Your task to perform on an android device: Open CNN.com Image 0: 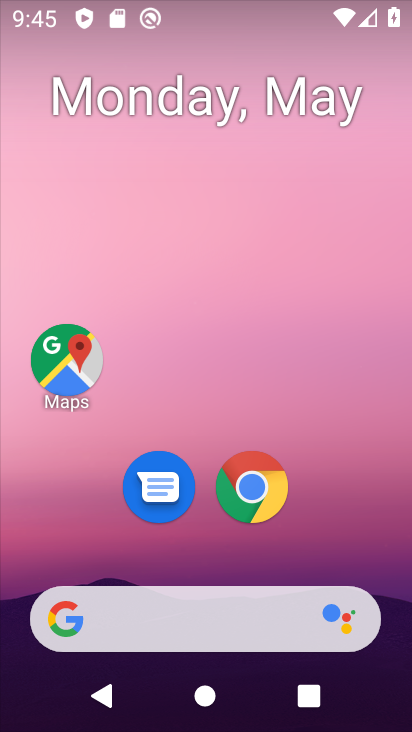
Step 0: click (266, 471)
Your task to perform on an android device: Open CNN.com Image 1: 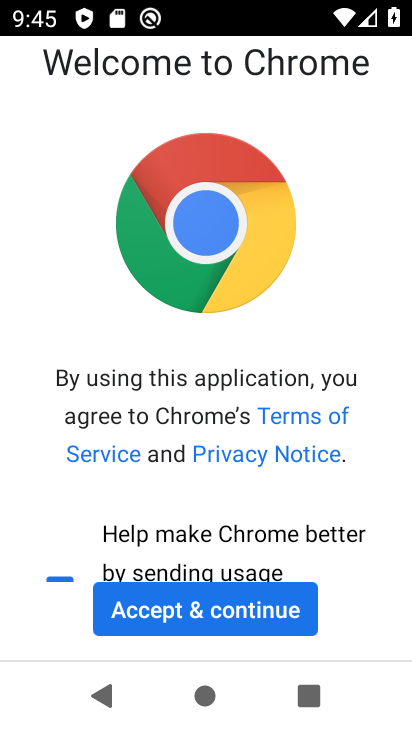
Step 1: click (255, 607)
Your task to perform on an android device: Open CNN.com Image 2: 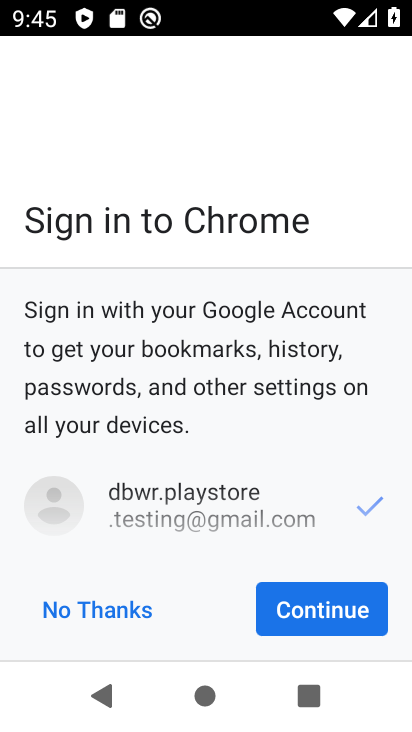
Step 2: click (340, 617)
Your task to perform on an android device: Open CNN.com Image 3: 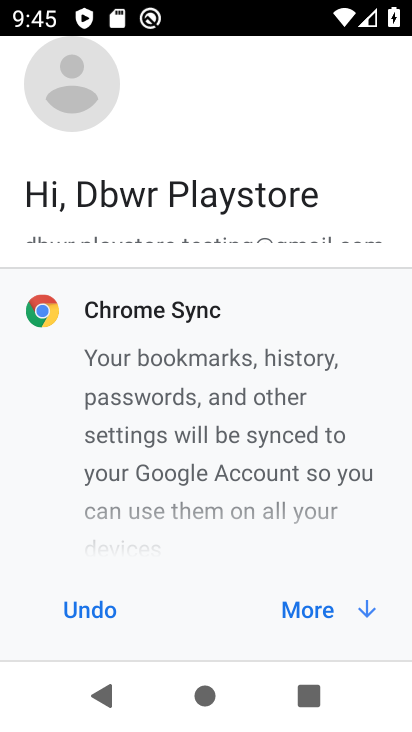
Step 3: click (326, 618)
Your task to perform on an android device: Open CNN.com Image 4: 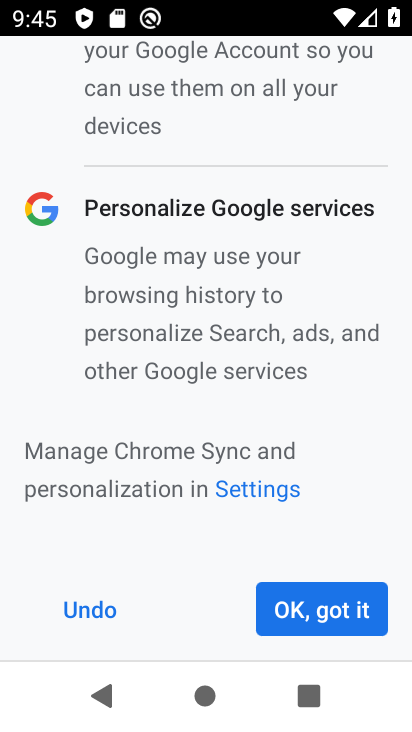
Step 4: click (321, 617)
Your task to perform on an android device: Open CNN.com Image 5: 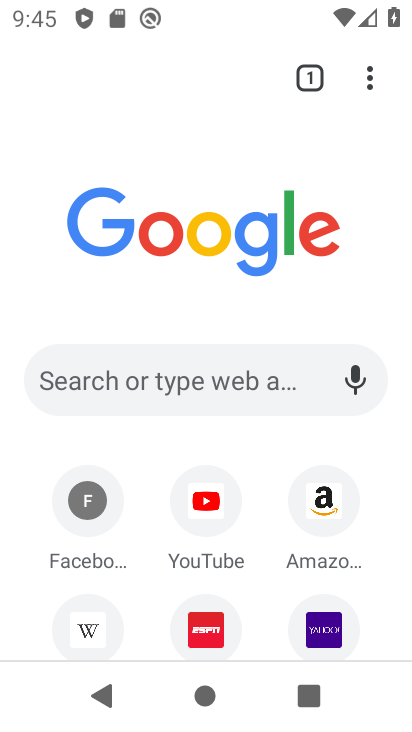
Step 5: click (181, 373)
Your task to perform on an android device: Open CNN.com Image 6: 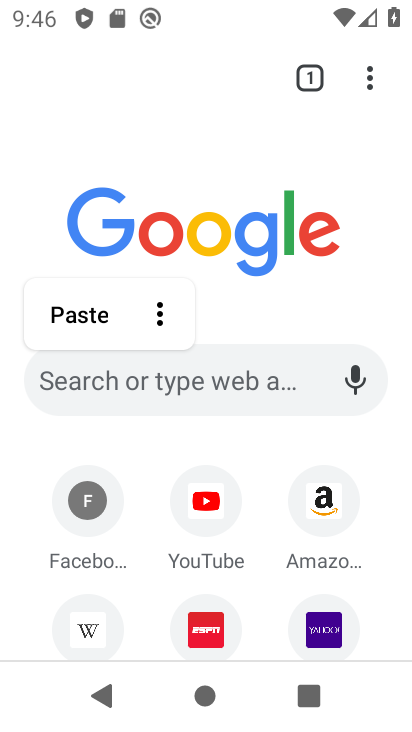
Step 6: type "CNN.com"
Your task to perform on an android device: Open CNN.com Image 7: 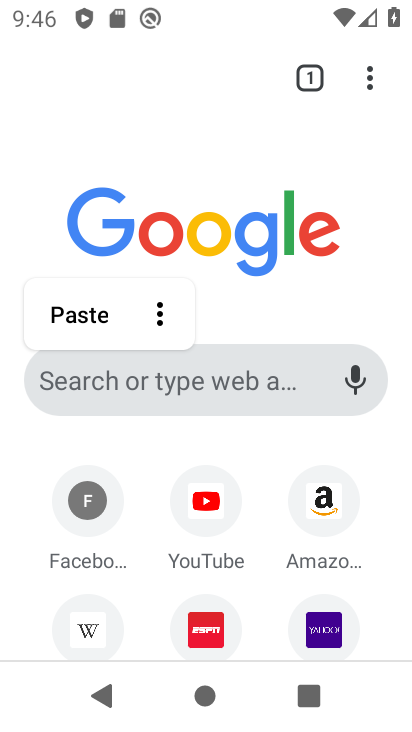
Step 7: click (225, 383)
Your task to perform on an android device: Open CNN.com Image 8: 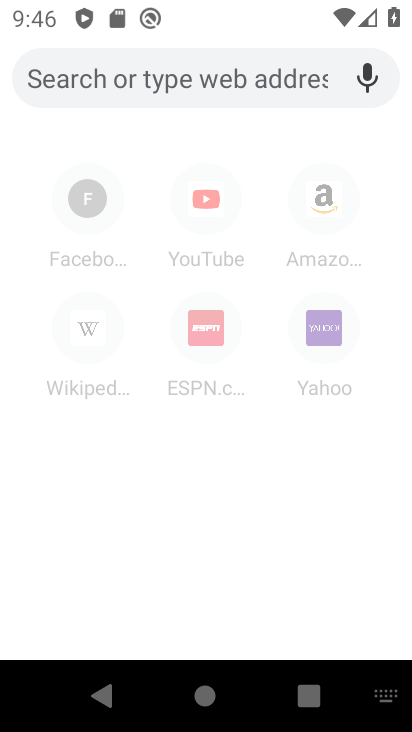
Step 8: type "CNN.com"
Your task to perform on an android device: Open CNN.com Image 9: 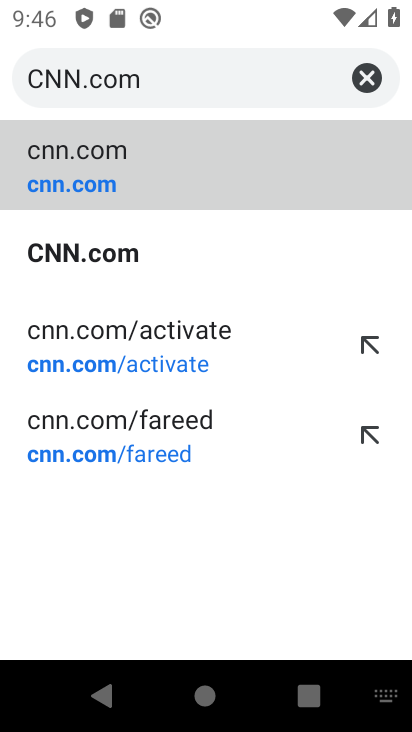
Step 9: click (126, 248)
Your task to perform on an android device: Open CNN.com Image 10: 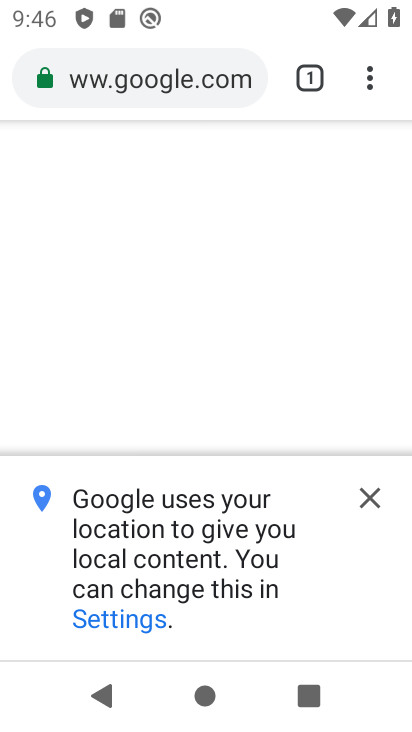
Step 10: click (369, 486)
Your task to perform on an android device: Open CNN.com Image 11: 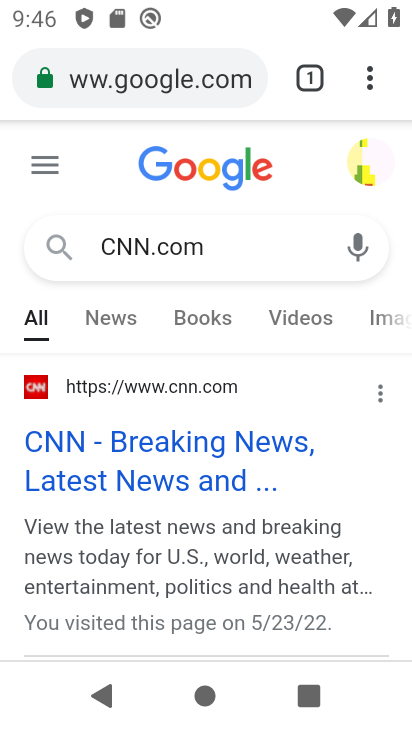
Step 11: task complete